Your task to perform on an android device: turn on data saver in the chrome app Image 0: 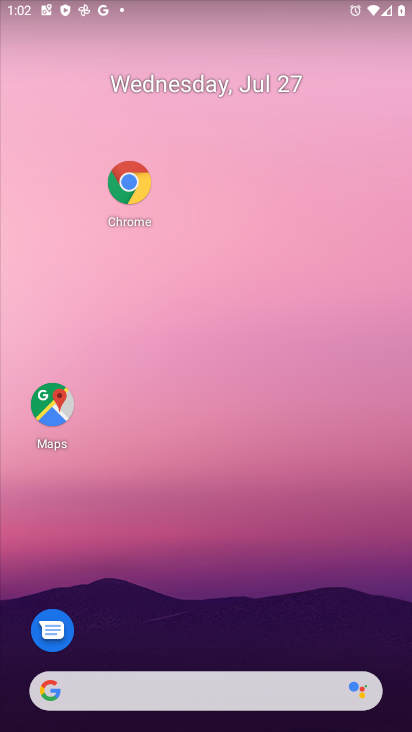
Step 0: click (128, 193)
Your task to perform on an android device: turn on data saver in the chrome app Image 1: 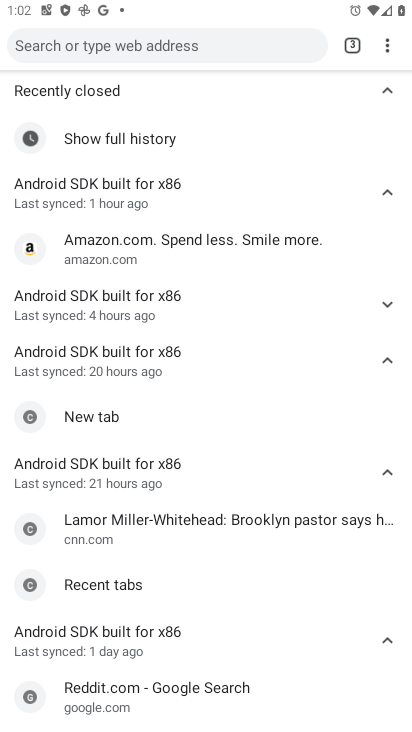
Step 1: click (387, 46)
Your task to perform on an android device: turn on data saver in the chrome app Image 2: 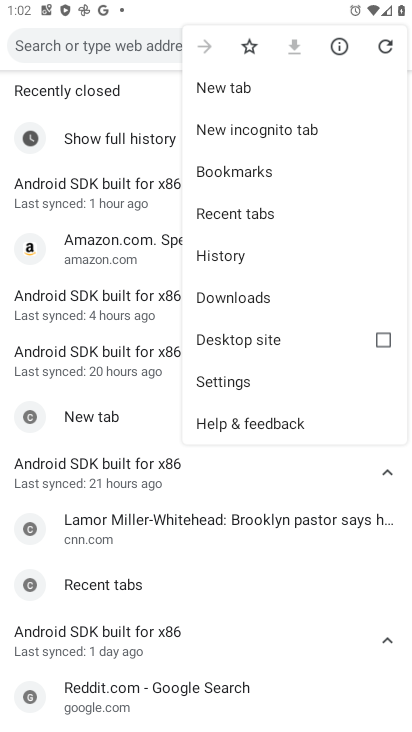
Step 2: click (218, 380)
Your task to perform on an android device: turn on data saver in the chrome app Image 3: 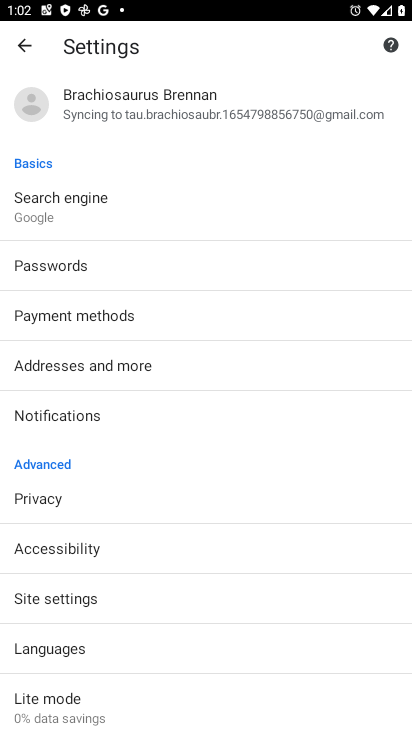
Step 3: click (123, 701)
Your task to perform on an android device: turn on data saver in the chrome app Image 4: 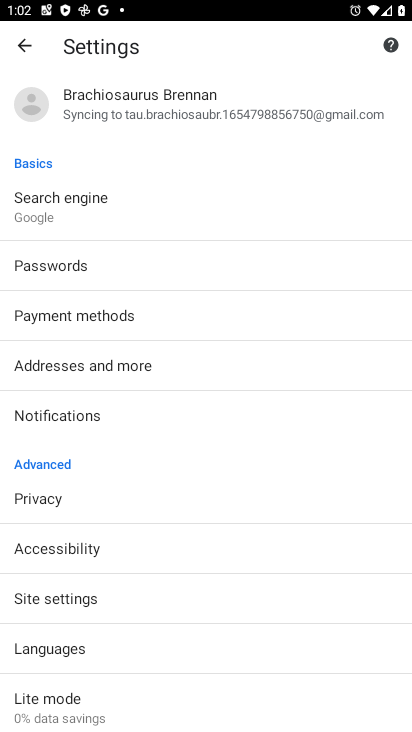
Step 4: click (123, 701)
Your task to perform on an android device: turn on data saver in the chrome app Image 5: 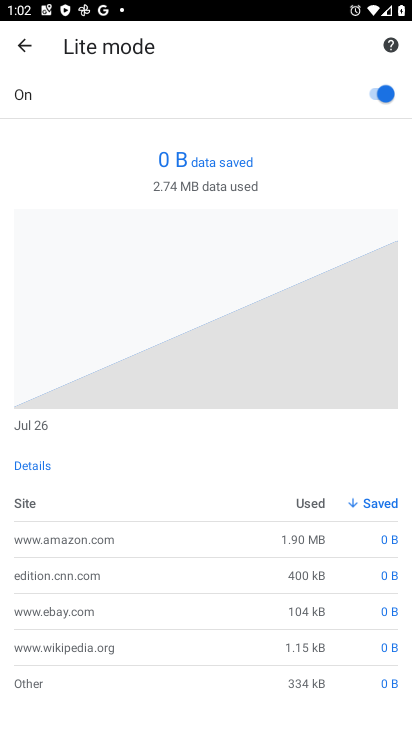
Step 5: task complete